Your task to perform on an android device: see creations saved in the google photos Image 0: 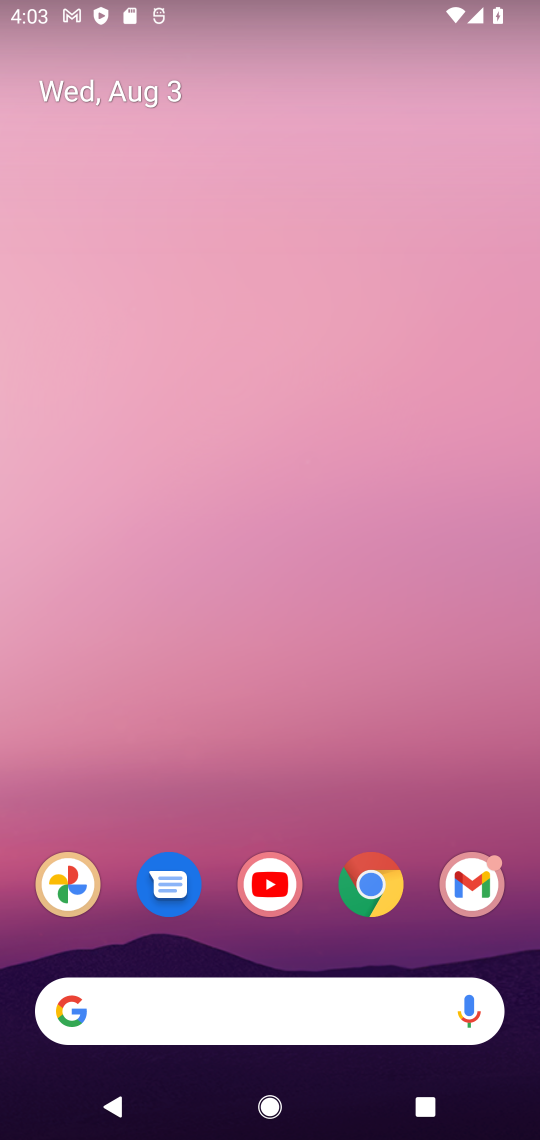
Step 0: drag from (259, 1022) to (393, 66)
Your task to perform on an android device: see creations saved in the google photos Image 1: 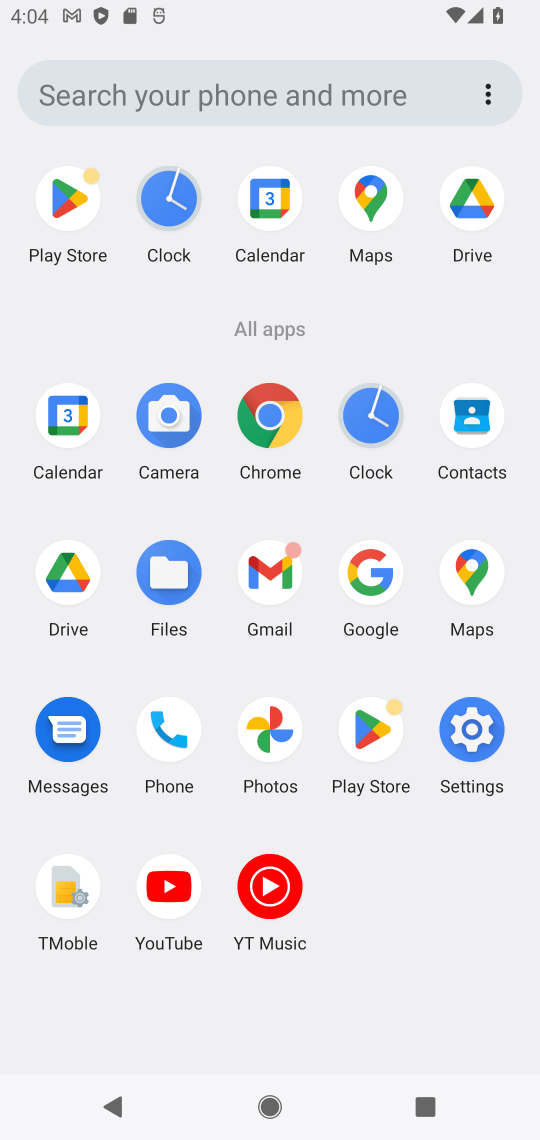
Step 1: click (262, 720)
Your task to perform on an android device: see creations saved in the google photos Image 2: 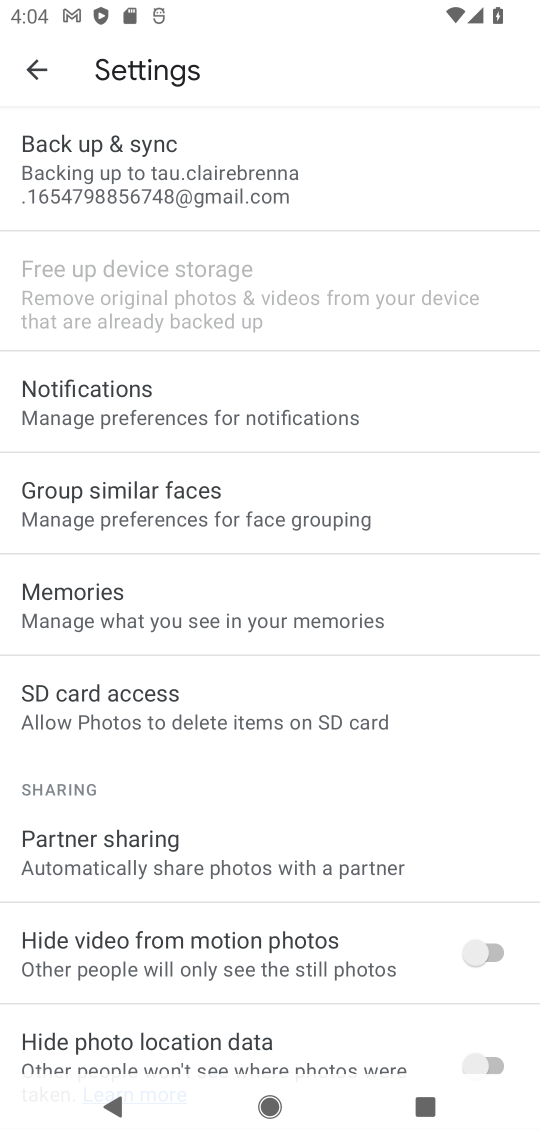
Step 2: click (38, 89)
Your task to perform on an android device: see creations saved in the google photos Image 3: 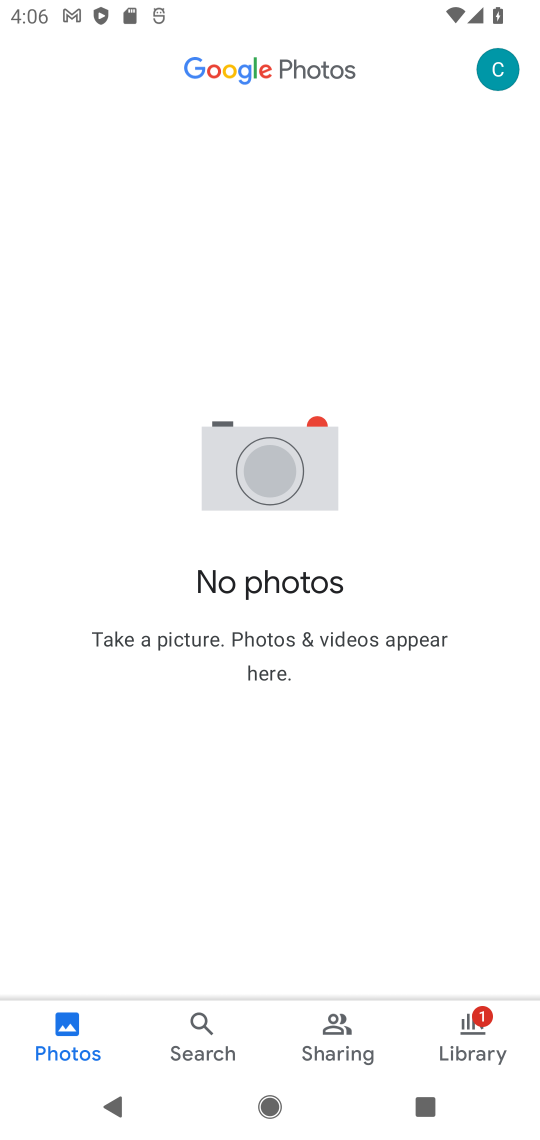
Step 3: task complete